Your task to perform on an android device: Go to Amazon Image 0: 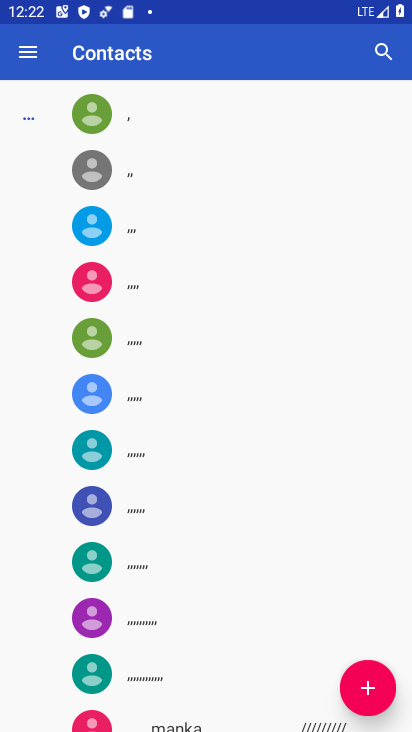
Step 0: press home button
Your task to perform on an android device: Go to Amazon Image 1: 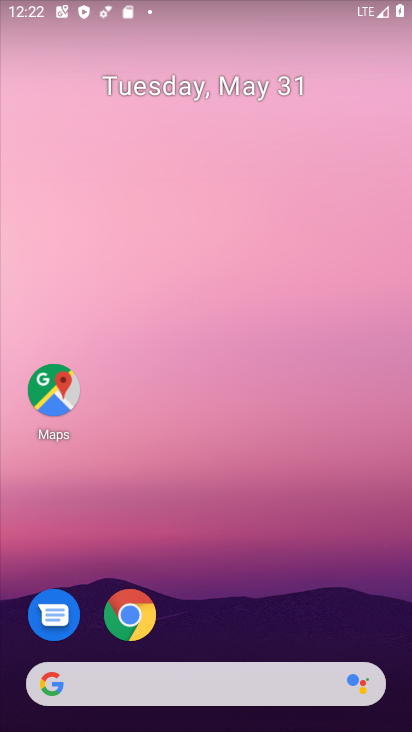
Step 1: click (131, 613)
Your task to perform on an android device: Go to Amazon Image 2: 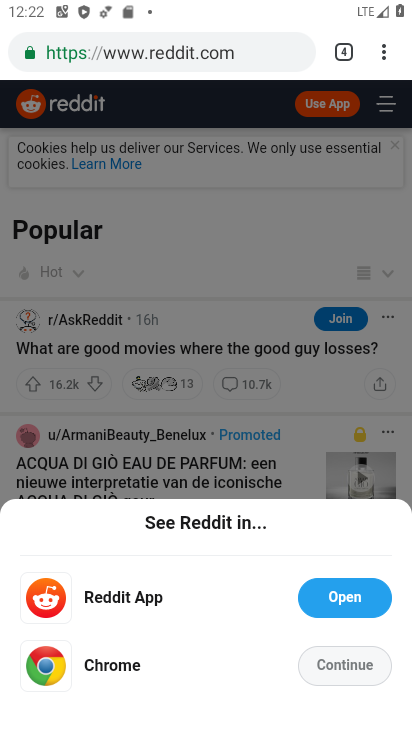
Step 2: click (222, 57)
Your task to perform on an android device: Go to Amazon Image 3: 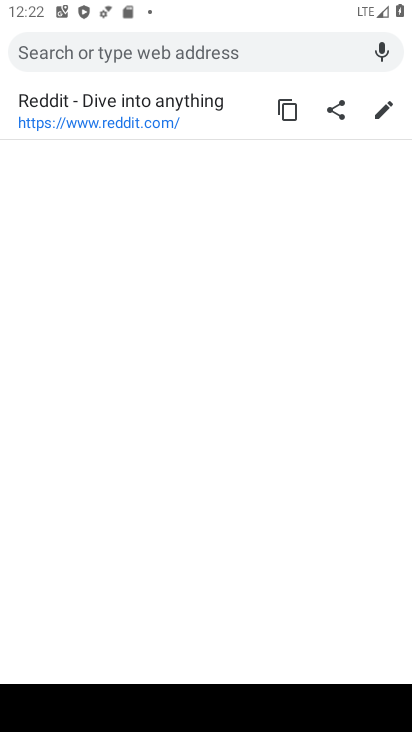
Step 3: type "Amazon"
Your task to perform on an android device: Go to Amazon Image 4: 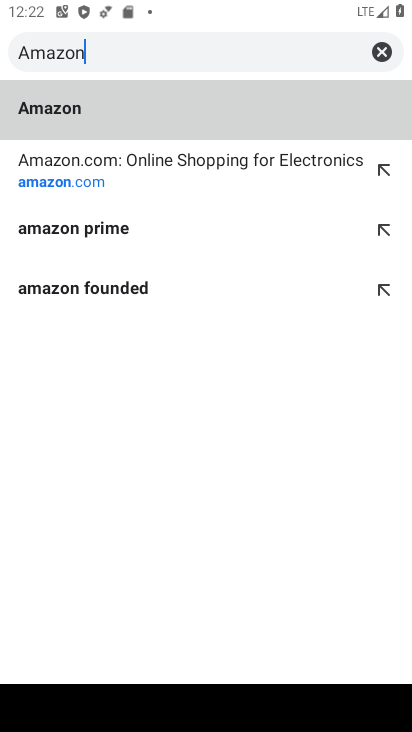
Step 4: click (178, 163)
Your task to perform on an android device: Go to Amazon Image 5: 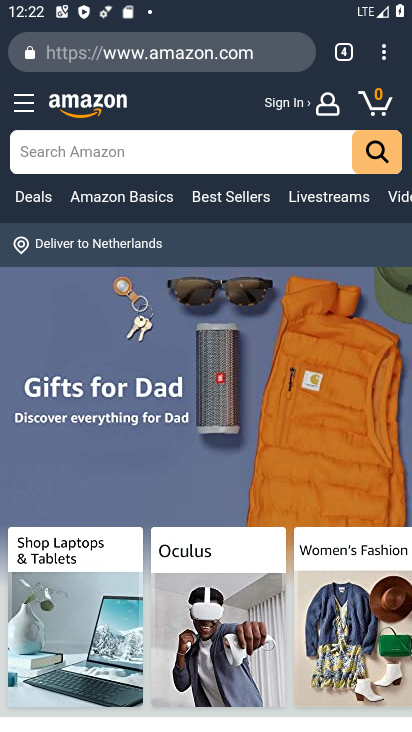
Step 5: task complete